Your task to perform on an android device: Search for seafood restaurants on Google Maps Image 0: 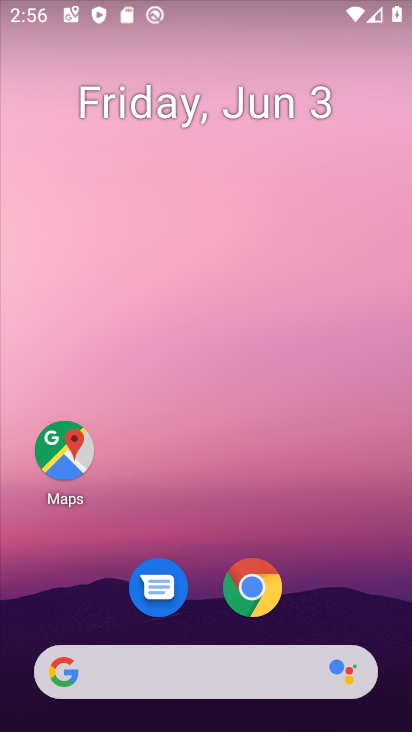
Step 0: drag from (218, 723) to (222, 99)
Your task to perform on an android device: Search for seafood restaurants on Google Maps Image 1: 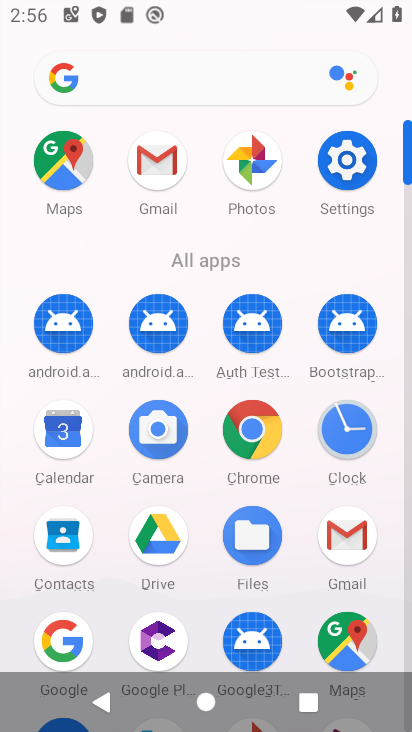
Step 1: click (340, 638)
Your task to perform on an android device: Search for seafood restaurants on Google Maps Image 2: 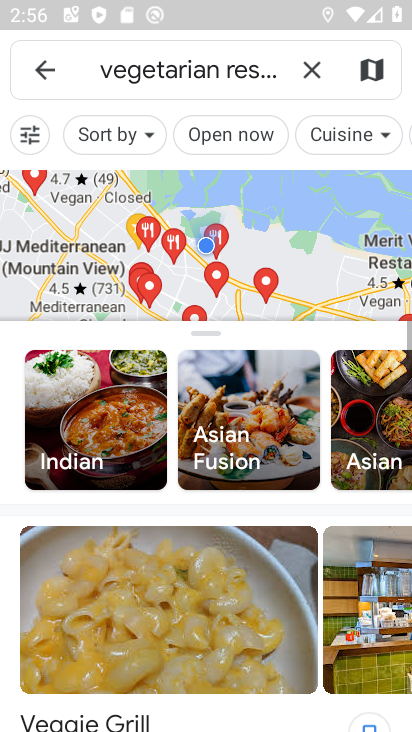
Step 2: click (316, 65)
Your task to perform on an android device: Search for seafood restaurants on Google Maps Image 3: 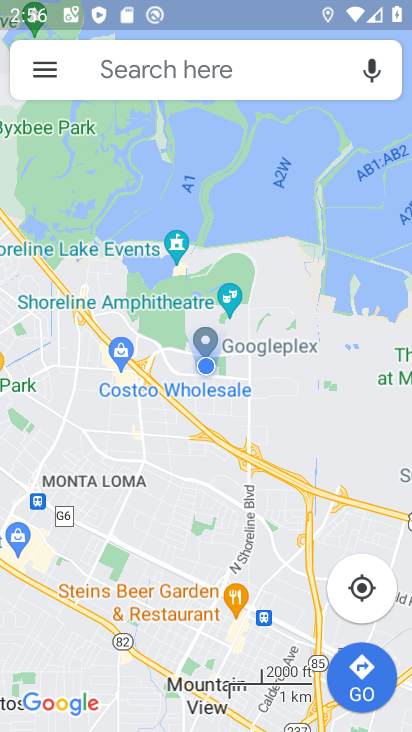
Step 3: click (184, 75)
Your task to perform on an android device: Search for seafood restaurants on Google Maps Image 4: 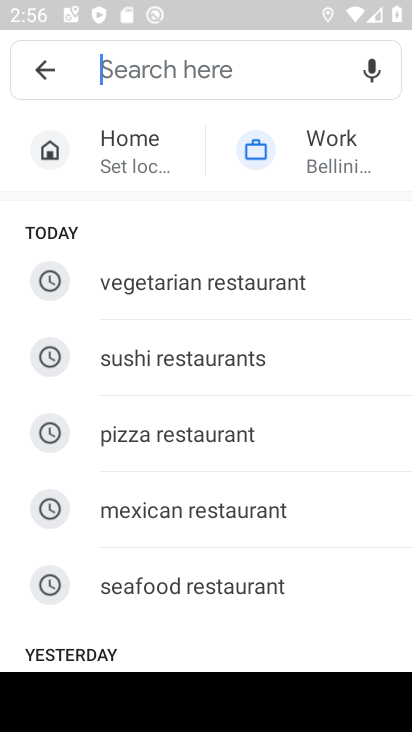
Step 4: type "seafood restaurants"
Your task to perform on an android device: Search for seafood restaurants on Google Maps Image 5: 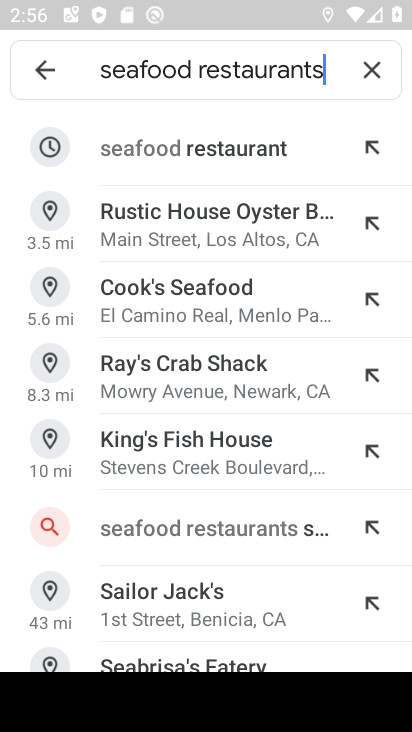
Step 5: click (217, 153)
Your task to perform on an android device: Search for seafood restaurants on Google Maps Image 6: 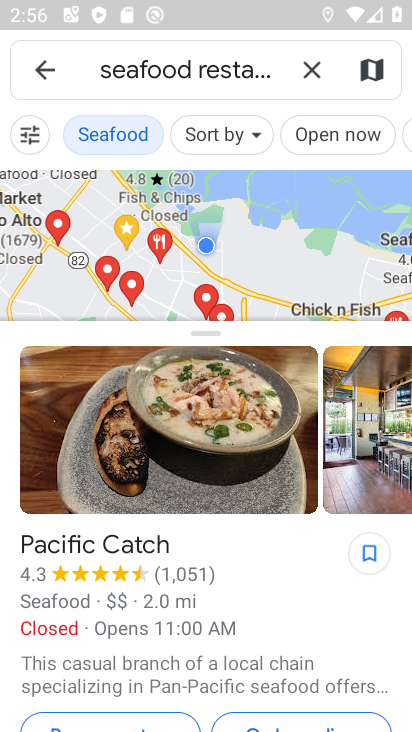
Step 6: task complete